Your task to perform on an android device: Open calendar and show me the second week of next month Image 0: 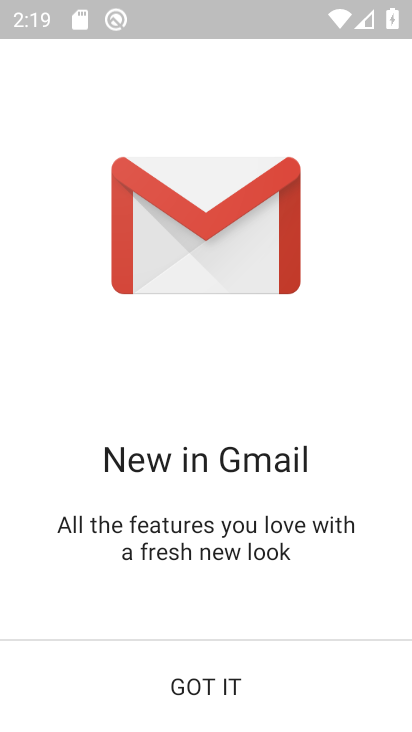
Step 0: click (200, 693)
Your task to perform on an android device: Open calendar and show me the second week of next month Image 1: 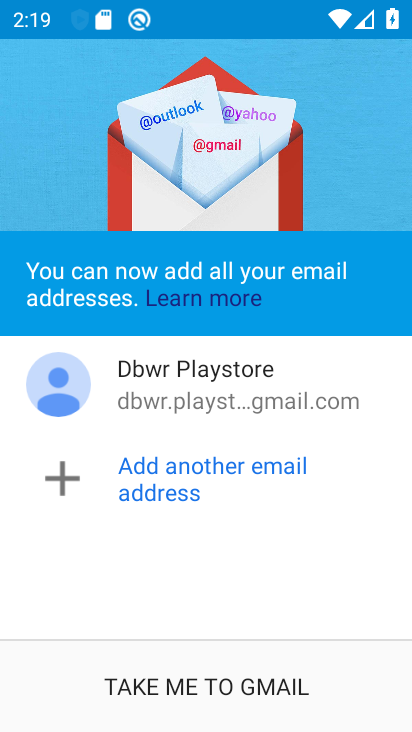
Step 1: click (206, 691)
Your task to perform on an android device: Open calendar and show me the second week of next month Image 2: 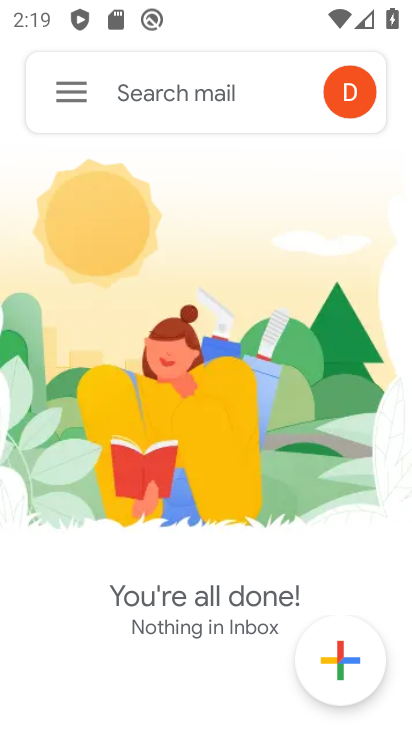
Step 2: press home button
Your task to perform on an android device: Open calendar and show me the second week of next month Image 3: 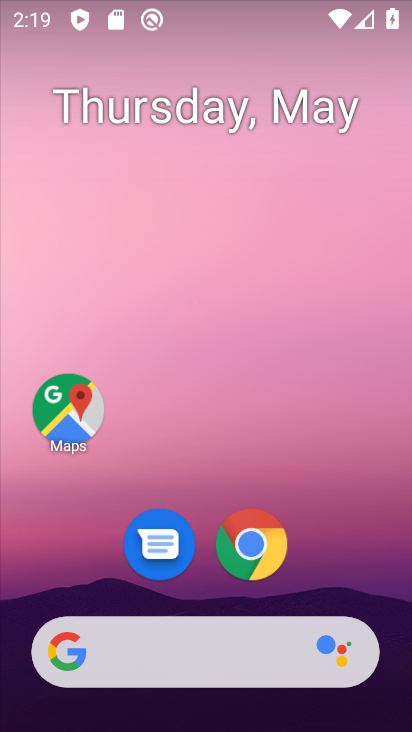
Step 3: drag from (146, 696) to (66, 150)
Your task to perform on an android device: Open calendar and show me the second week of next month Image 4: 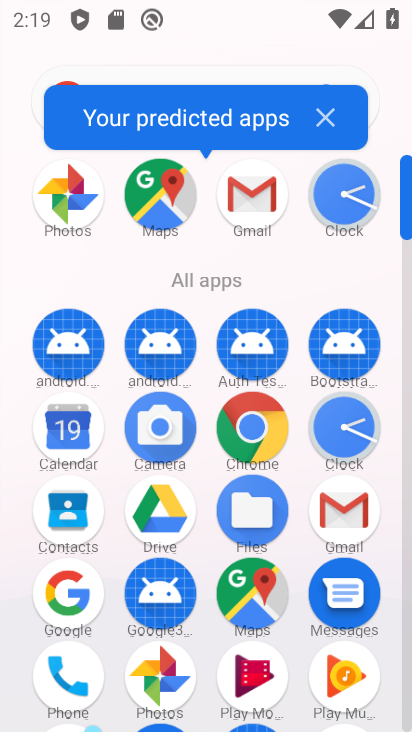
Step 4: click (71, 434)
Your task to perform on an android device: Open calendar and show me the second week of next month Image 5: 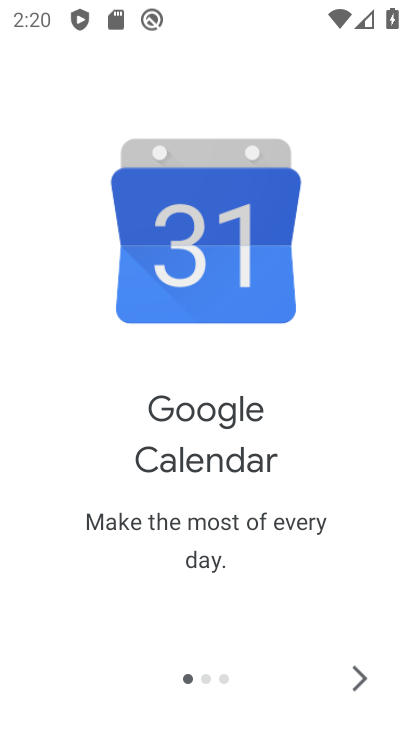
Step 5: click (366, 658)
Your task to perform on an android device: Open calendar and show me the second week of next month Image 6: 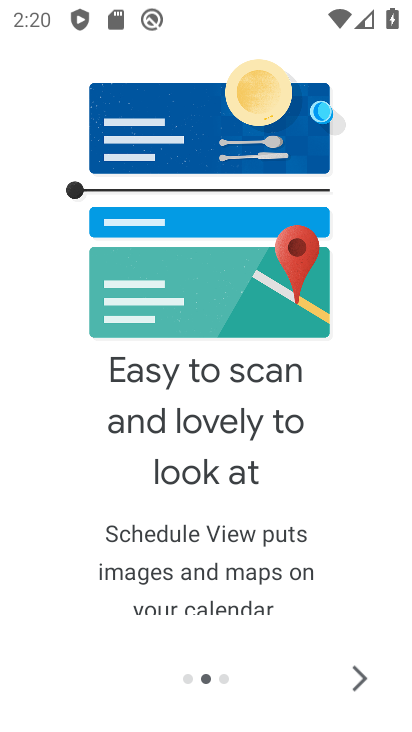
Step 6: click (357, 686)
Your task to perform on an android device: Open calendar and show me the second week of next month Image 7: 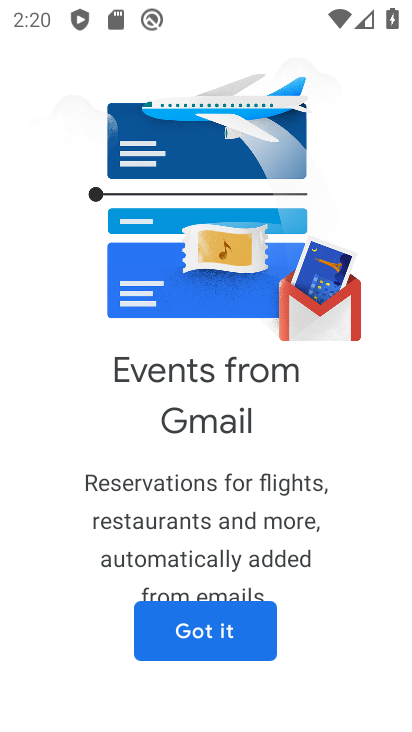
Step 7: click (223, 632)
Your task to perform on an android device: Open calendar and show me the second week of next month Image 8: 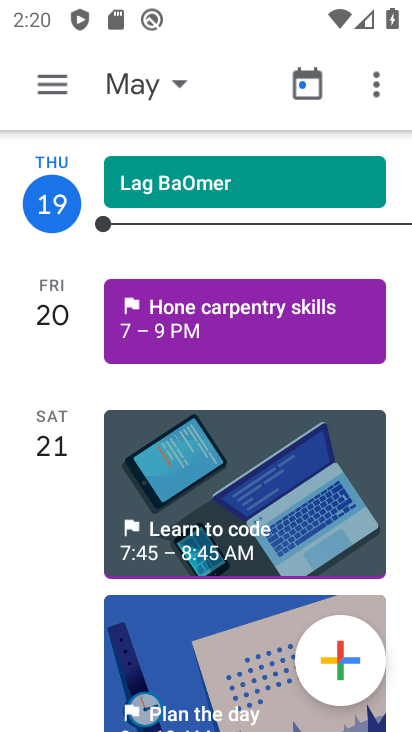
Step 8: click (131, 92)
Your task to perform on an android device: Open calendar and show me the second week of next month Image 9: 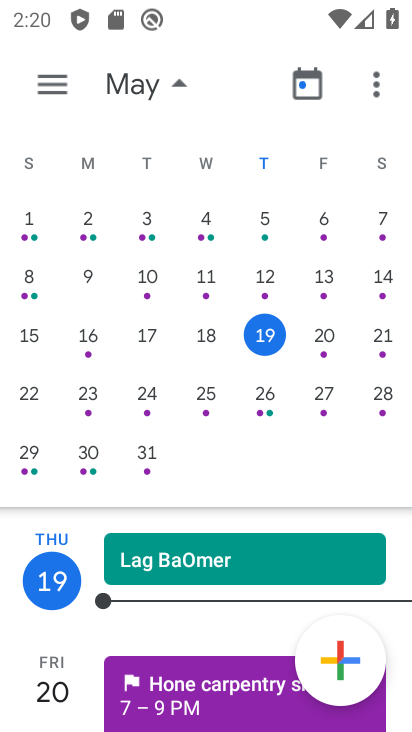
Step 9: drag from (369, 212) to (12, 268)
Your task to perform on an android device: Open calendar and show me the second week of next month Image 10: 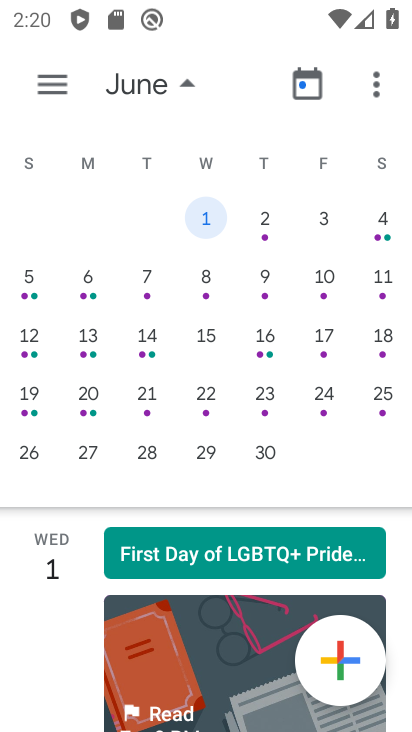
Step 10: click (31, 278)
Your task to perform on an android device: Open calendar and show me the second week of next month Image 11: 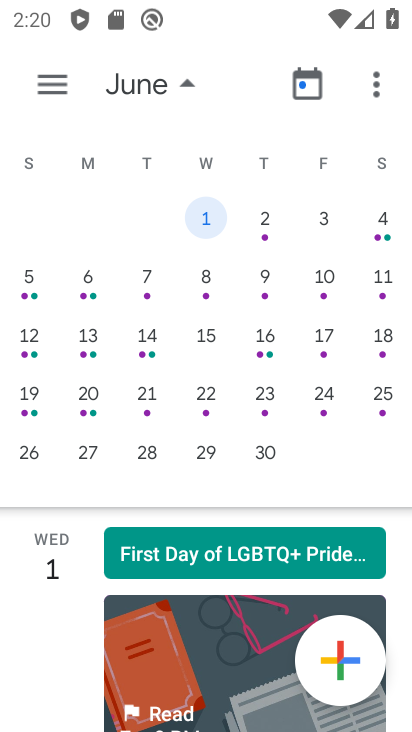
Step 11: click (32, 278)
Your task to perform on an android device: Open calendar and show me the second week of next month Image 12: 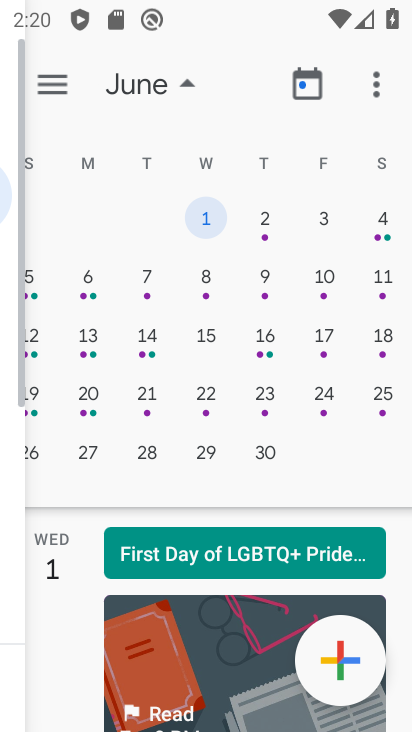
Step 12: click (28, 282)
Your task to perform on an android device: Open calendar and show me the second week of next month Image 13: 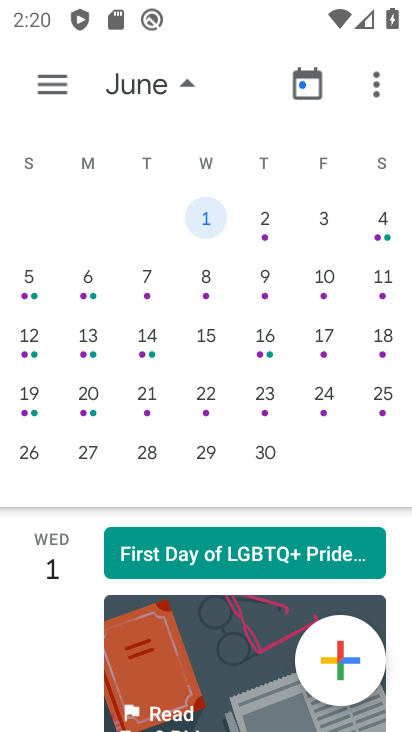
Step 13: click (28, 282)
Your task to perform on an android device: Open calendar and show me the second week of next month Image 14: 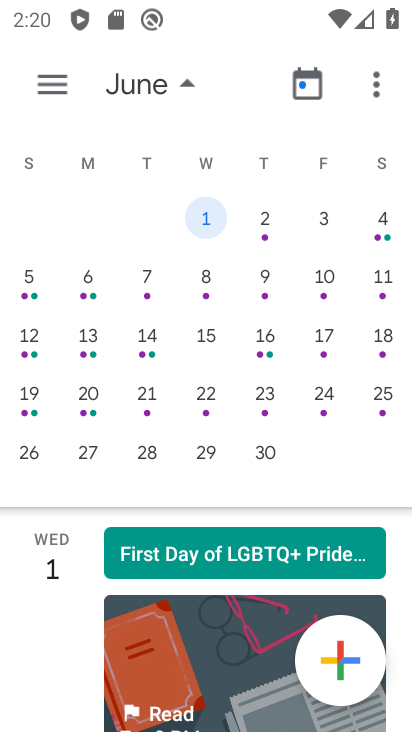
Step 14: click (35, 278)
Your task to perform on an android device: Open calendar and show me the second week of next month Image 15: 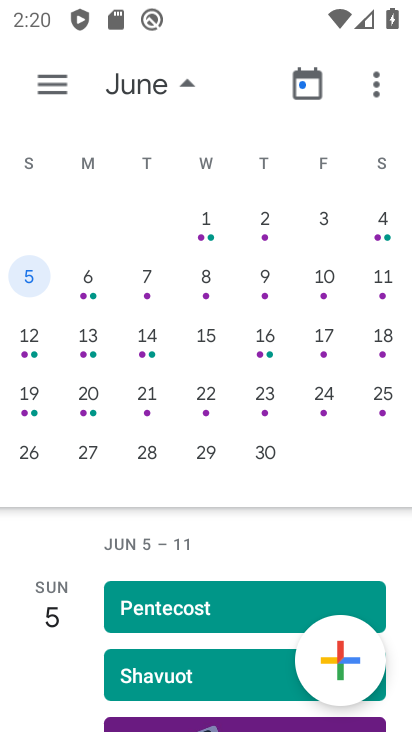
Step 15: task complete